Your task to perform on an android device: Show me the alarms in the clock app Image 0: 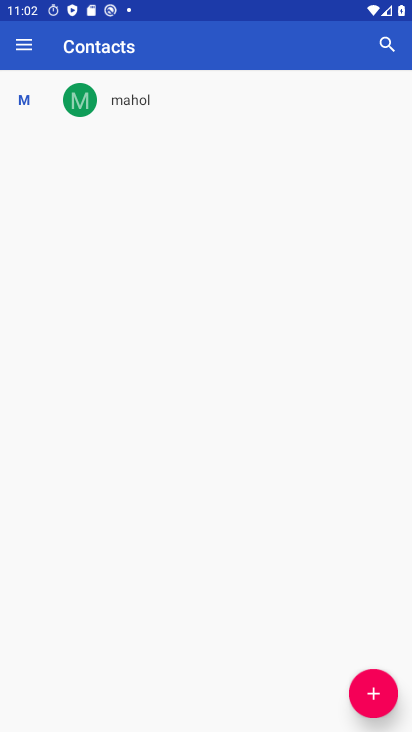
Step 0: press home button
Your task to perform on an android device: Show me the alarms in the clock app Image 1: 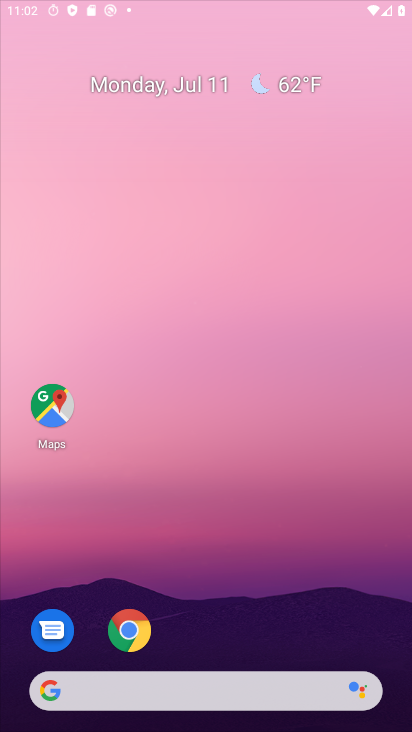
Step 1: drag from (247, 640) to (287, 8)
Your task to perform on an android device: Show me the alarms in the clock app Image 2: 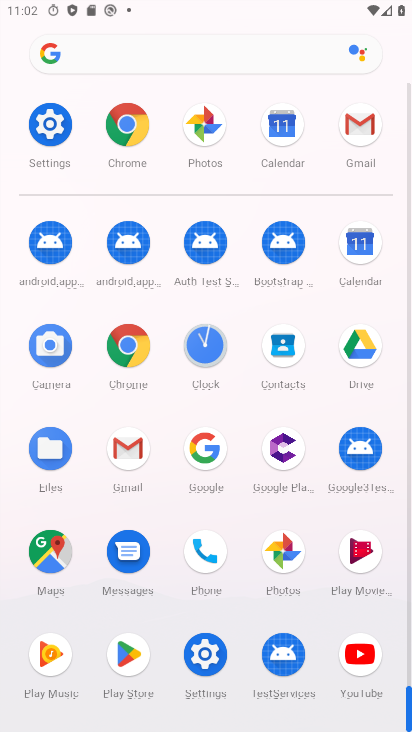
Step 2: click (216, 348)
Your task to perform on an android device: Show me the alarms in the clock app Image 3: 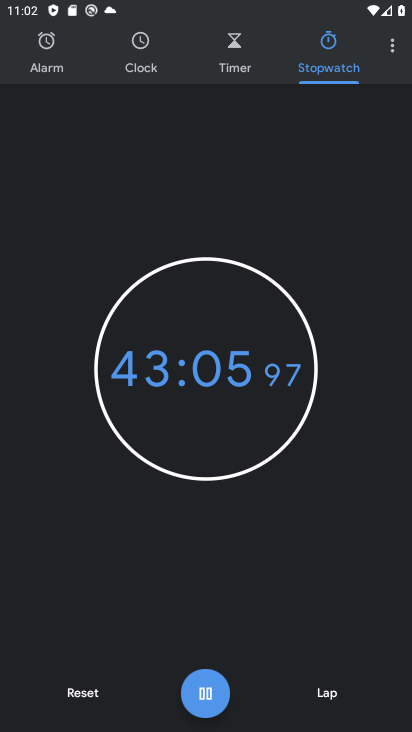
Step 3: click (51, 51)
Your task to perform on an android device: Show me the alarms in the clock app Image 4: 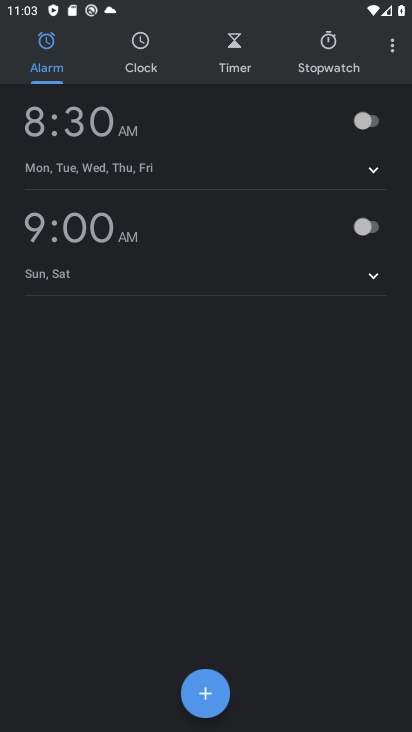
Step 4: task complete